Your task to perform on an android device: check the backup settings in the google photos Image 0: 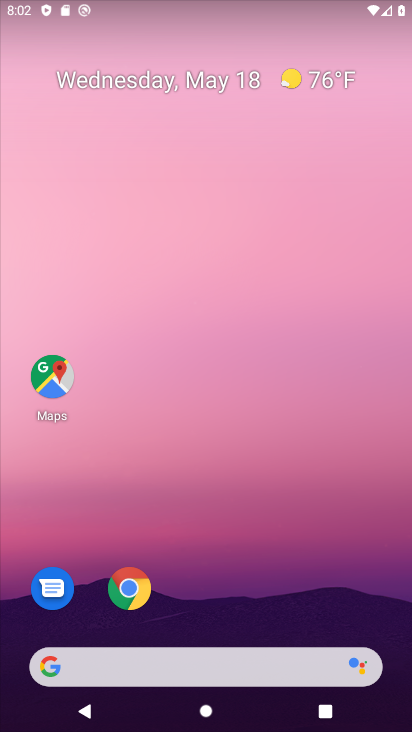
Step 0: drag from (305, 619) to (335, 14)
Your task to perform on an android device: check the backup settings in the google photos Image 1: 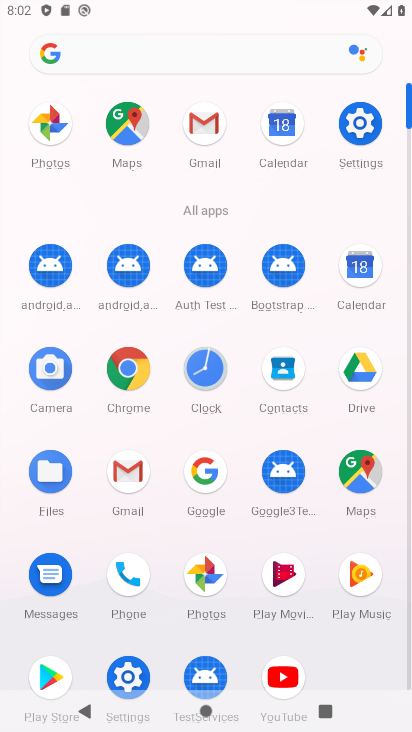
Step 1: click (68, 138)
Your task to perform on an android device: check the backup settings in the google photos Image 2: 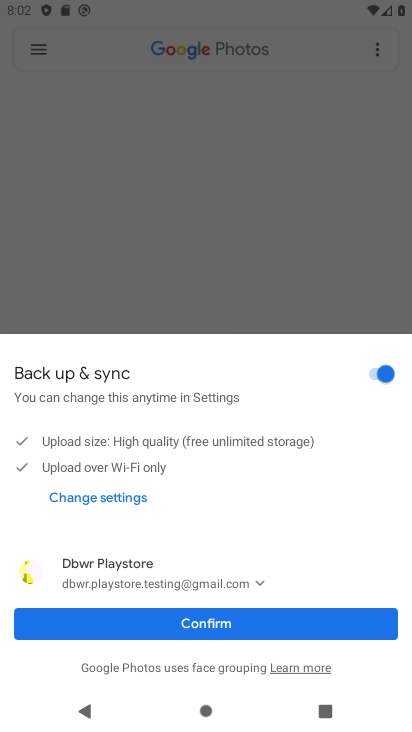
Step 2: click (238, 625)
Your task to perform on an android device: check the backup settings in the google photos Image 3: 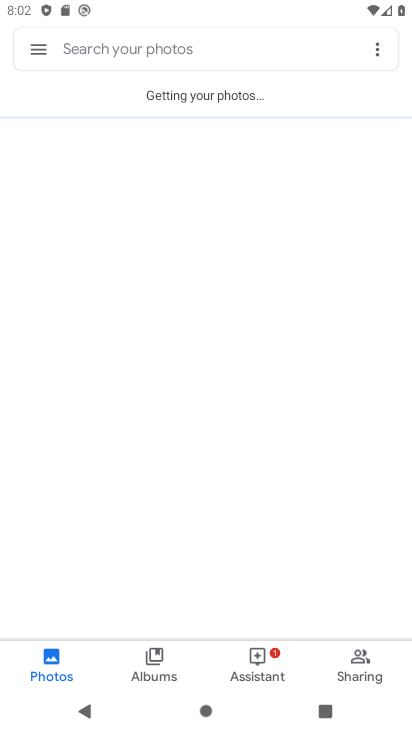
Step 3: click (36, 37)
Your task to perform on an android device: check the backup settings in the google photos Image 4: 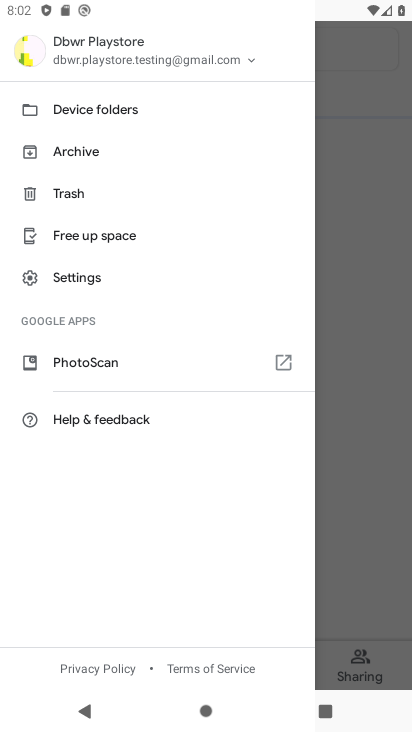
Step 4: click (99, 269)
Your task to perform on an android device: check the backup settings in the google photos Image 5: 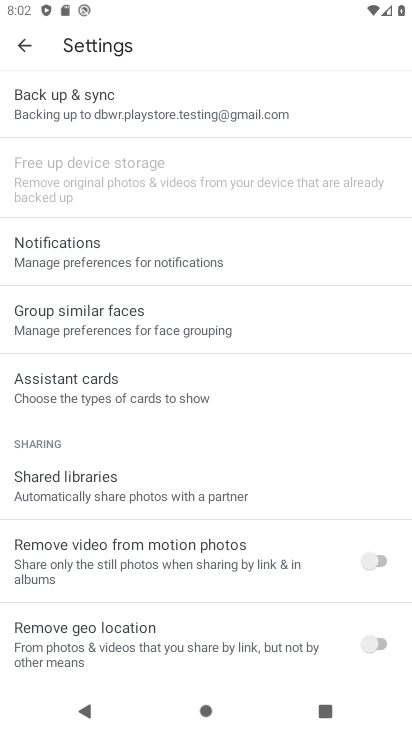
Step 5: click (145, 102)
Your task to perform on an android device: check the backup settings in the google photos Image 6: 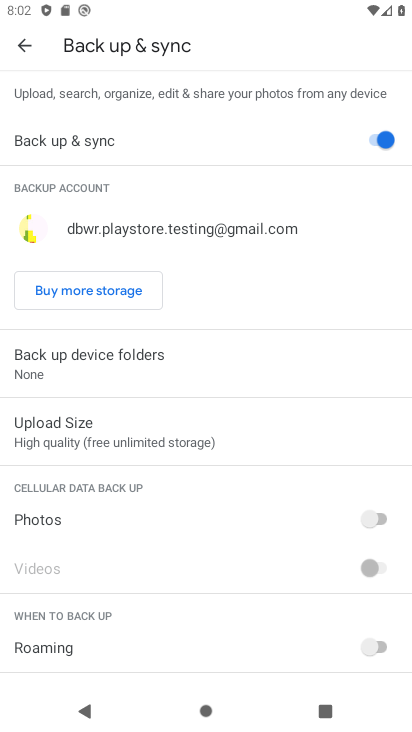
Step 6: task complete